Your task to perform on an android device: turn on showing notifications on the lock screen Image 0: 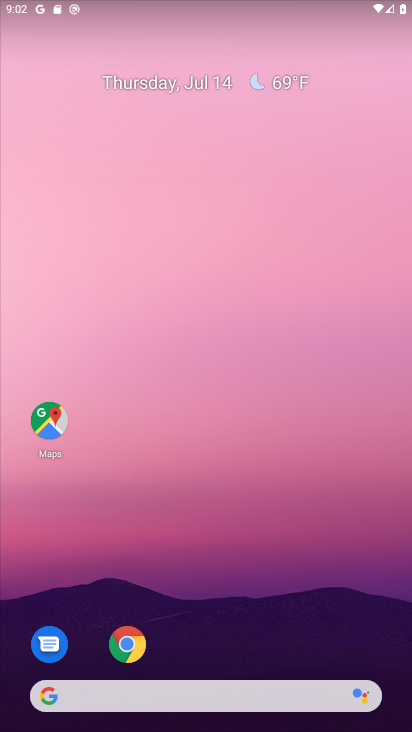
Step 0: drag from (187, 617) to (362, 348)
Your task to perform on an android device: turn on showing notifications on the lock screen Image 1: 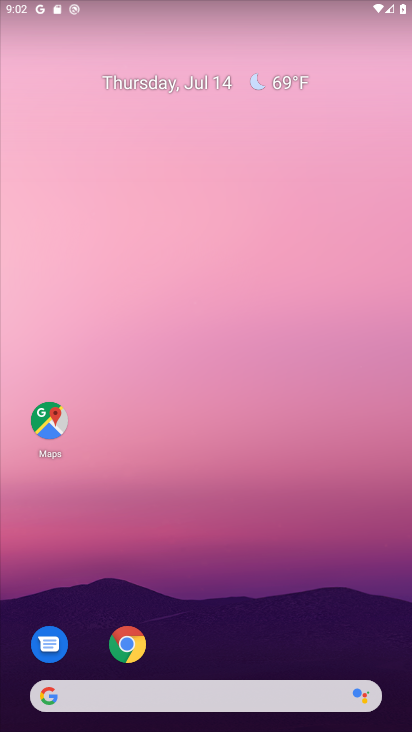
Step 1: drag from (207, 636) to (171, 42)
Your task to perform on an android device: turn on showing notifications on the lock screen Image 2: 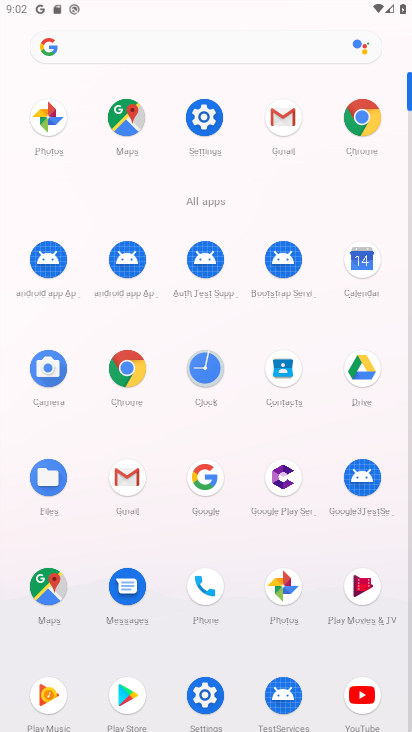
Step 2: click (197, 135)
Your task to perform on an android device: turn on showing notifications on the lock screen Image 3: 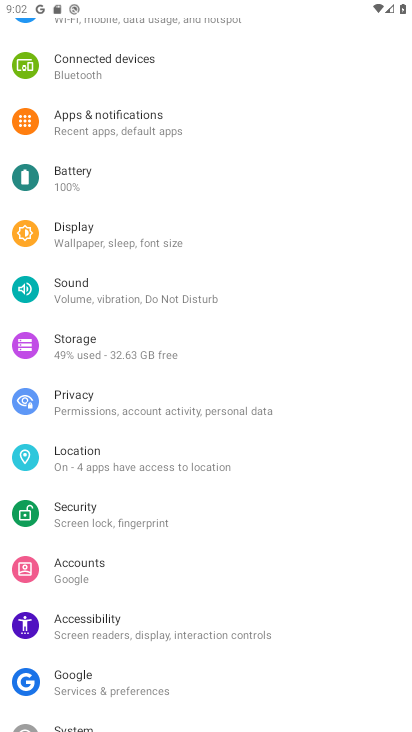
Step 3: click (163, 133)
Your task to perform on an android device: turn on showing notifications on the lock screen Image 4: 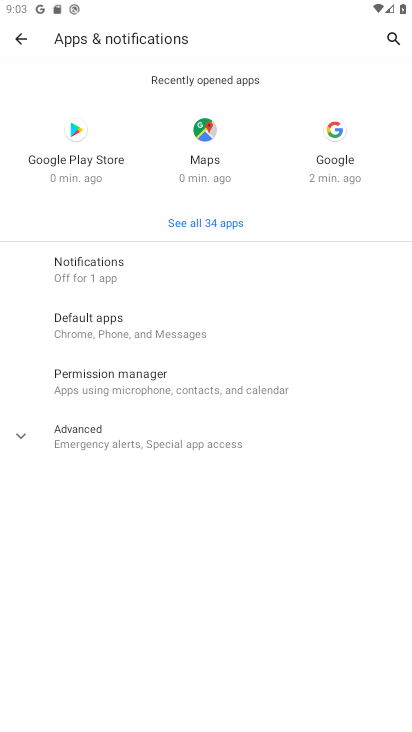
Step 4: click (147, 286)
Your task to perform on an android device: turn on showing notifications on the lock screen Image 5: 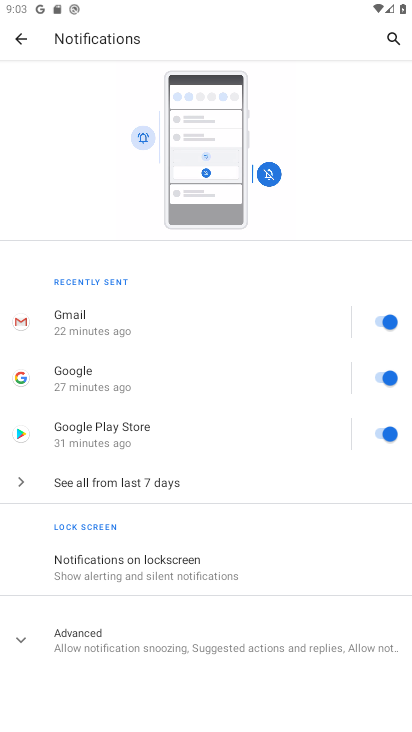
Step 5: click (206, 590)
Your task to perform on an android device: turn on showing notifications on the lock screen Image 6: 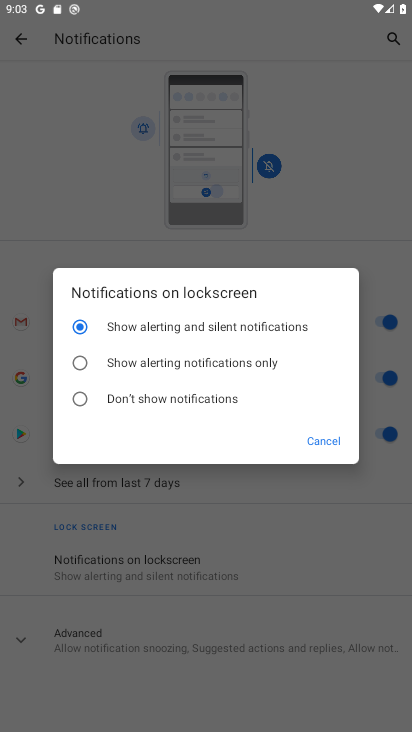
Step 6: task complete